Your task to perform on an android device: Open Google Chrome and click the shortcut for Amazon.com Image 0: 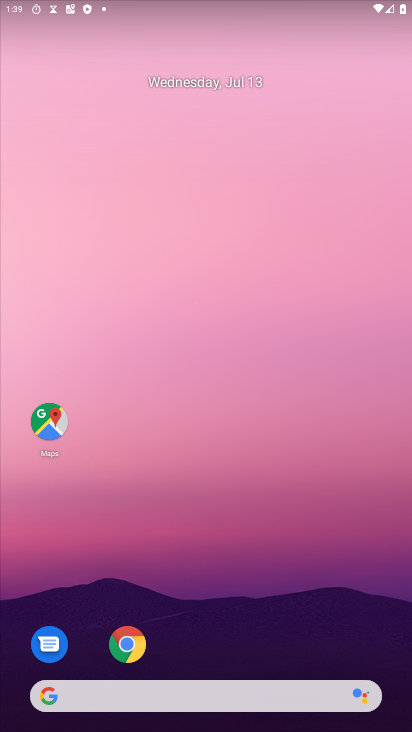
Step 0: press home button
Your task to perform on an android device: Open Google Chrome and click the shortcut for Amazon.com Image 1: 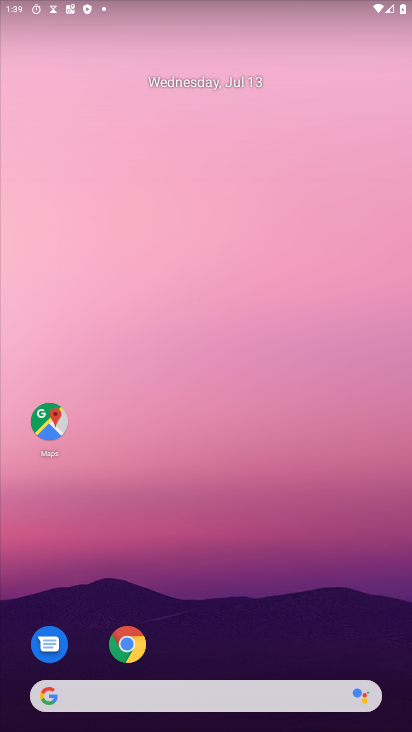
Step 1: drag from (291, 566) to (267, 139)
Your task to perform on an android device: Open Google Chrome and click the shortcut for Amazon.com Image 2: 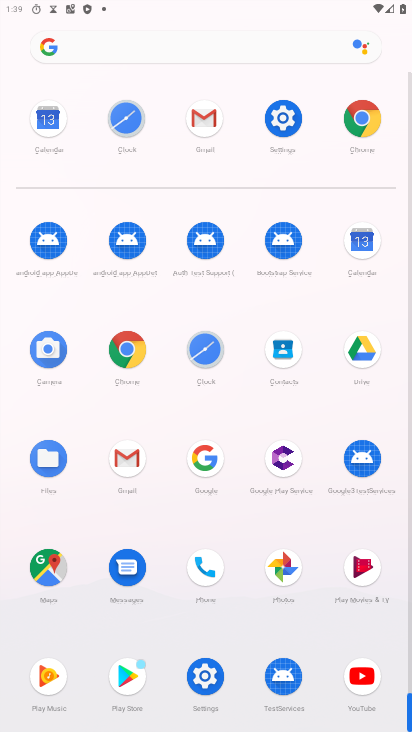
Step 2: click (127, 346)
Your task to perform on an android device: Open Google Chrome and click the shortcut for Amazon.com Image 3: 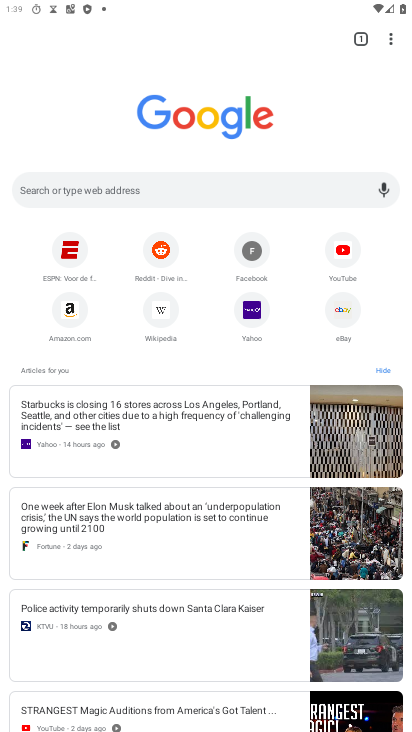
Step 3: click (68, 311)
Your task to perform on an android device: Open Google Chrome and click the shortcut for Amazon.com Image 4: 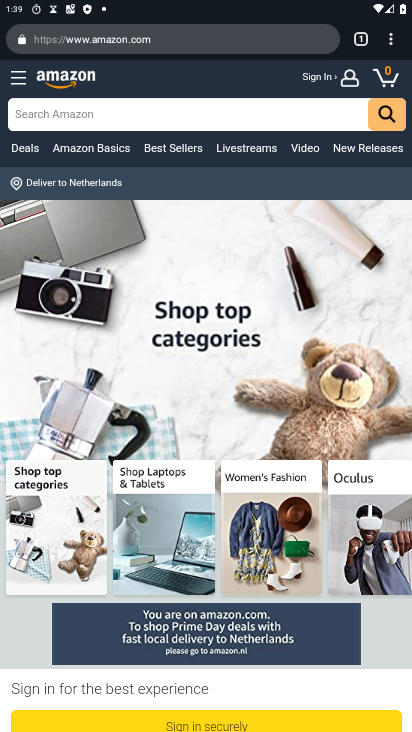
Step 4: task complete